Your task to perform on an android device: turn off sleep mode Image 0: 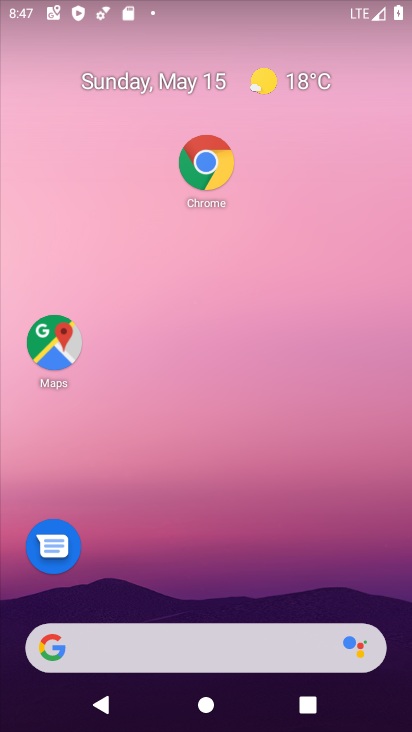
Step 0: drag from (245, 470) to (258, 39)
Your task to perform on an android device: turn off sleep mode Image 1: 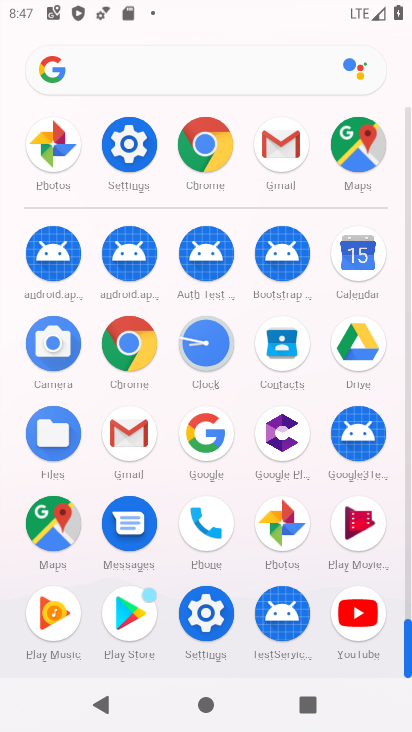
Step 1: click (120, 137)
Your task to perform on an android device: turn off sleep mode Image 2: 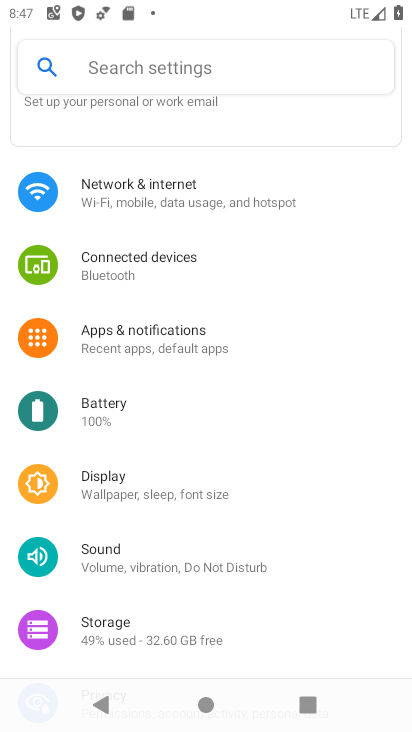
Step 2: task complete